Your task to perform on an android device: turn on javascript in the chrome app Image 0: 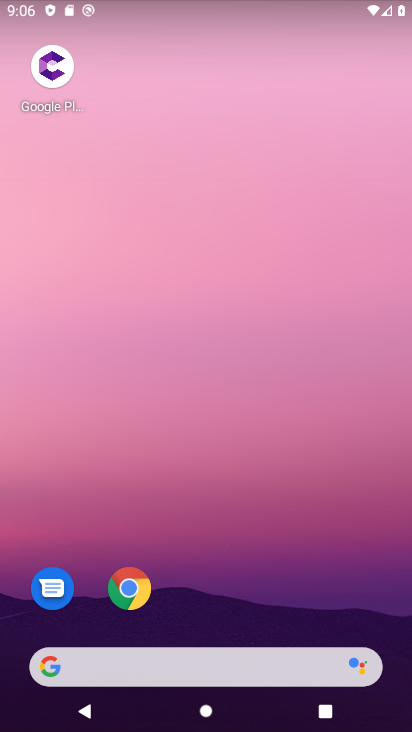
Step 0: click (127, 588)
Your task to perform on an android device: turn on javascript in the chrome app Image 1: 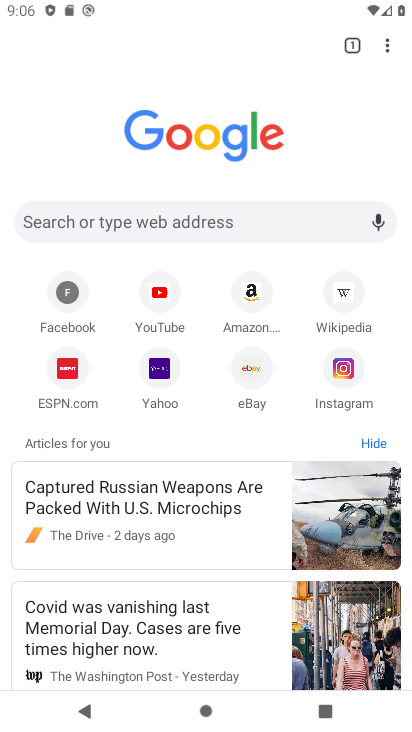
Step 1: click (387, 44)
Your task to perform on an android device: turn on javascript in the chrome app Image 2: 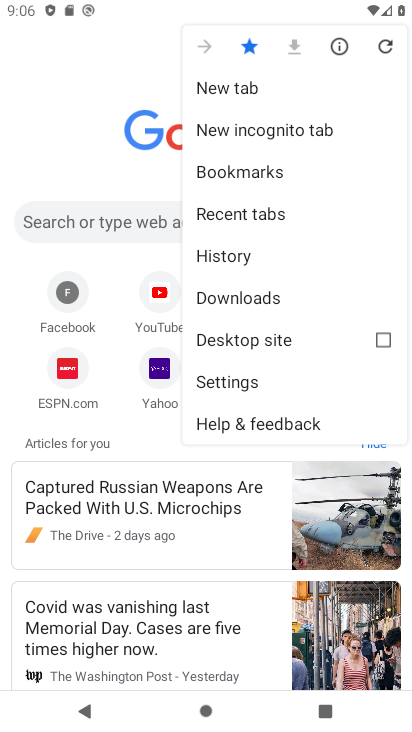
Step 2: click (248, 382)
Your task to perform on an android device: turn on javascript in the chrome app Image 3: 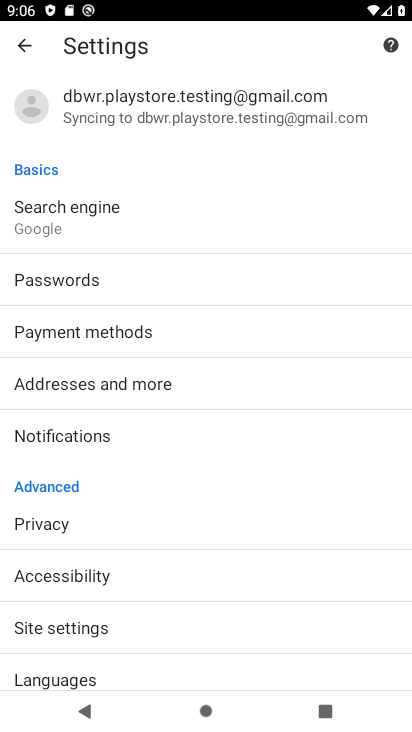
Step 3: drag from (125, 651) to (173, 567)
Your task to perform on an android device: turn on javascript in the chrome app Image 4: 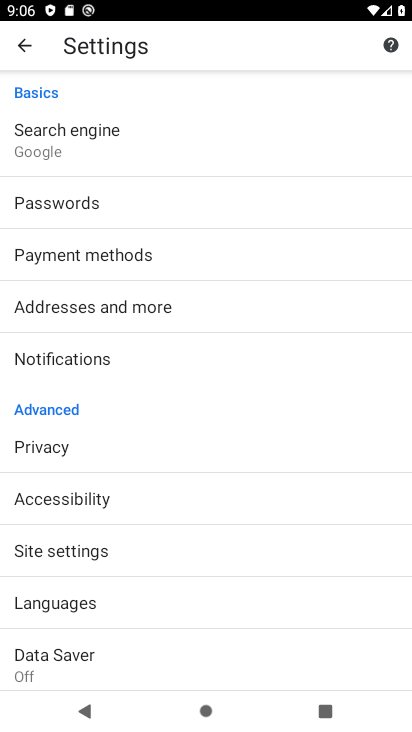
Step 4: click (96, 555)
Your task to perform on an android device: turn on javascript in the chrome app Image 5: 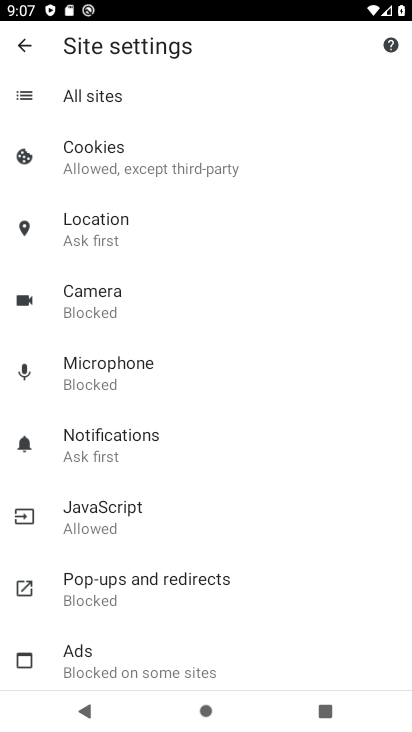
Step 5: click (129, 525)
Your task to perform on an android device: turn on javascript in the chrome app Image 6: 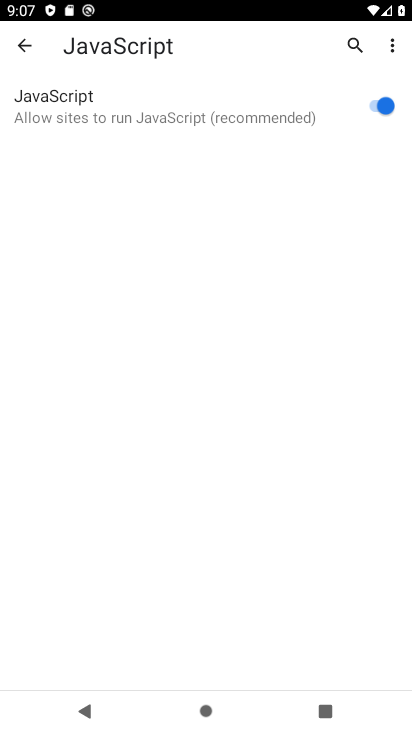
Step 6: task complete